Your task to perform on an android device: open a bookmark in the chrome app Image 0: 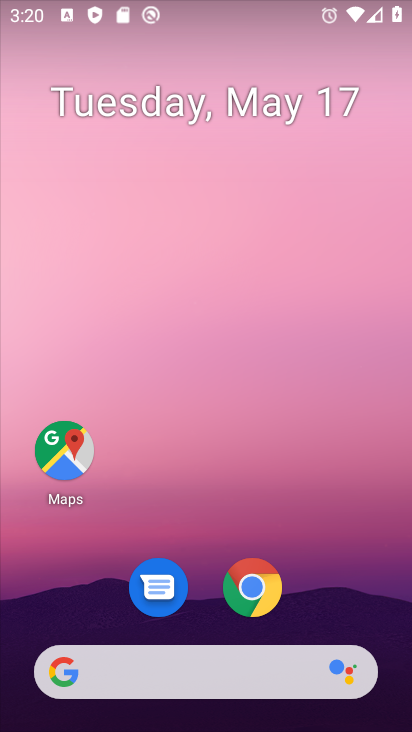
Step 0: drag from (205, 431) to (193, 78)
Your task to perform on an android device: open a bookmark in the chrome app Image 1: 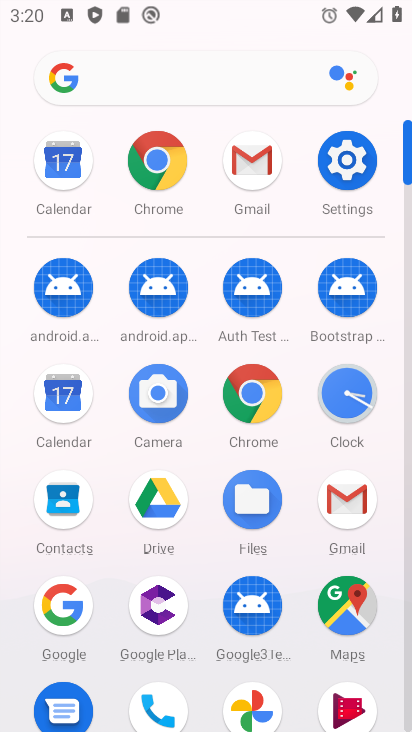
Step 1: click (154, 165)
Your task to perform on an android device: open a bookmark in the chrome app Image 2: 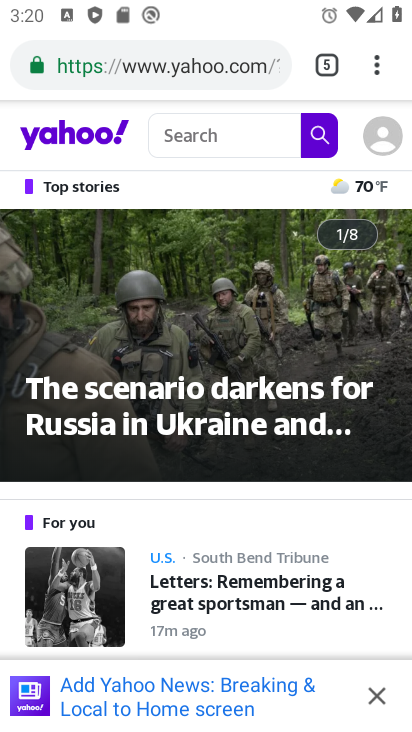
Step 2: drag from (246, 615) to (313, 300)
Your task to perform on an android device: open a bookmark in the chrome app Image 3: 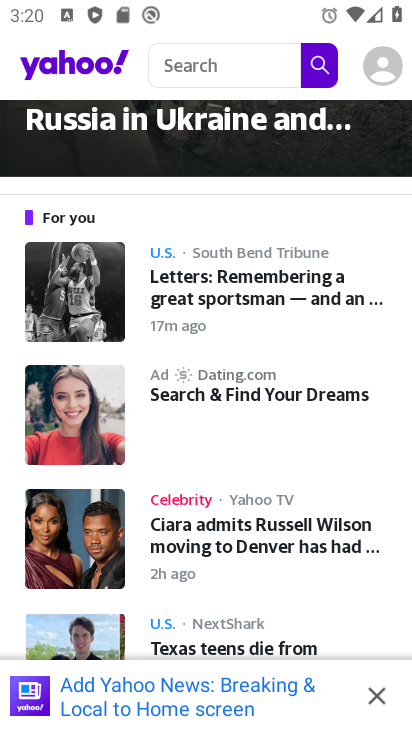
Step 3: drag from (311, 148) to (361, 449)
Your task to perform on an android device: open a bookmark in the chrome app Image 4: 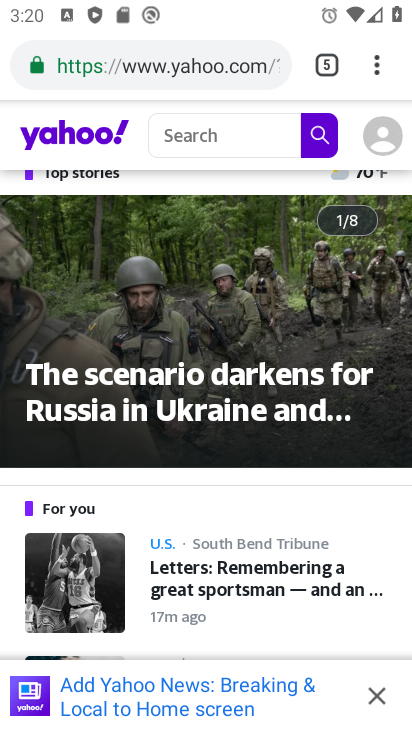
Step 4: click (376, 59)
Your task to perform on an android device: open a bookmark in the chrome app Image 5: 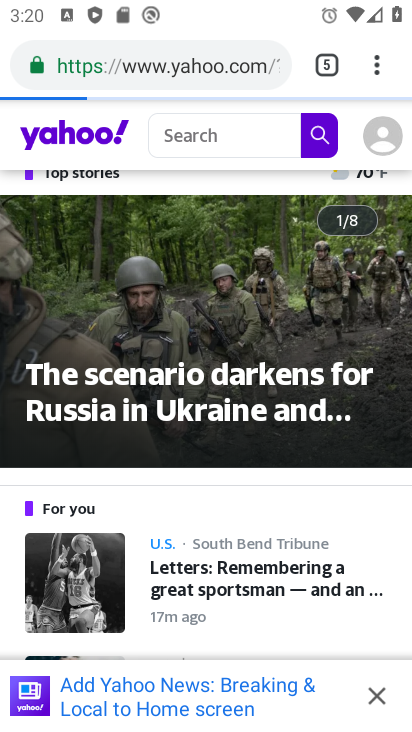
Step 5: click (372, 65)
Your task to perform on an android device: open a bookmark in the chrome app Image 6: 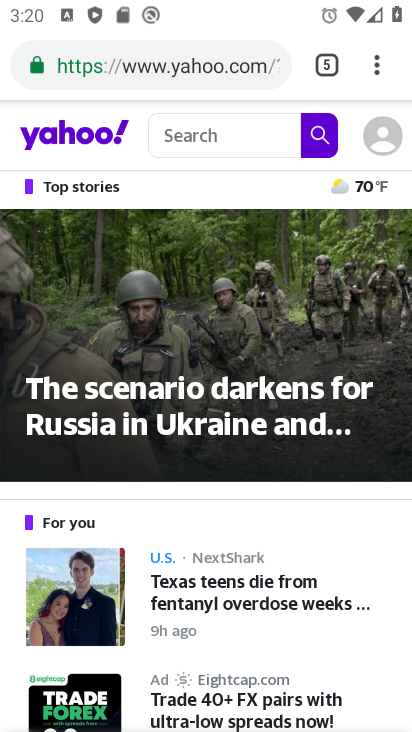
Step 6: click (372, 65)
Your task to perform on an android device: open a bookmark in the chrome app Image 7: 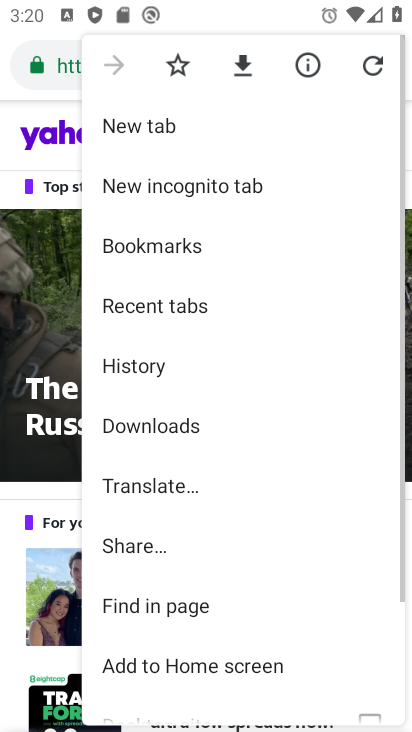
Step 7: drag from (221, 596) to (254, 125)
Your task to perform on an android device: open a bookmark in the chrome app Image 8: 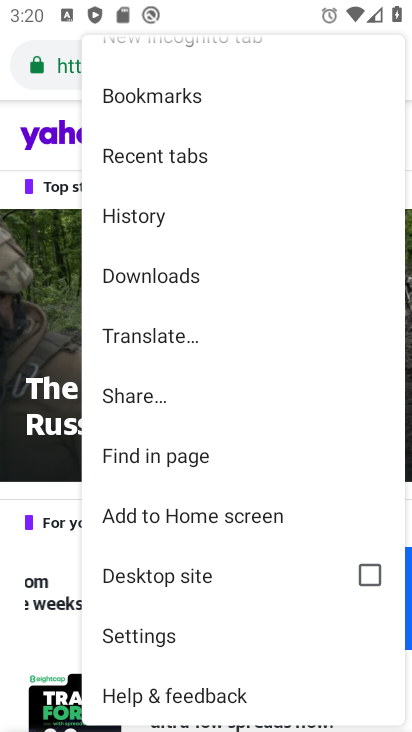
Step 8: click (153, 100)
Your task to perform on an android device: open a bookmark in the chrome app Image 9: 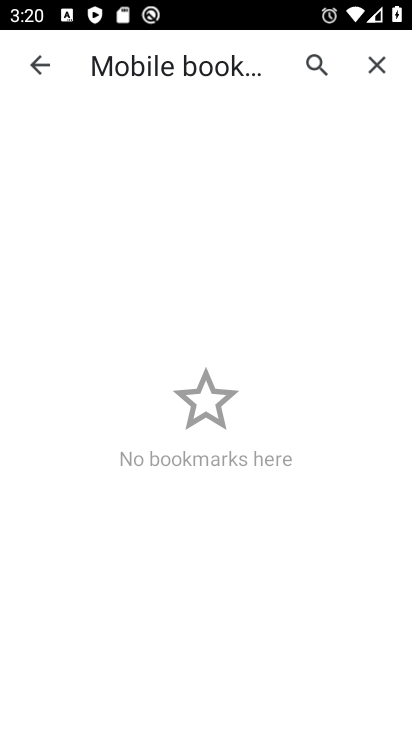
Step 9: task complete